Your task to perform on an android device: check battery use Image 0: 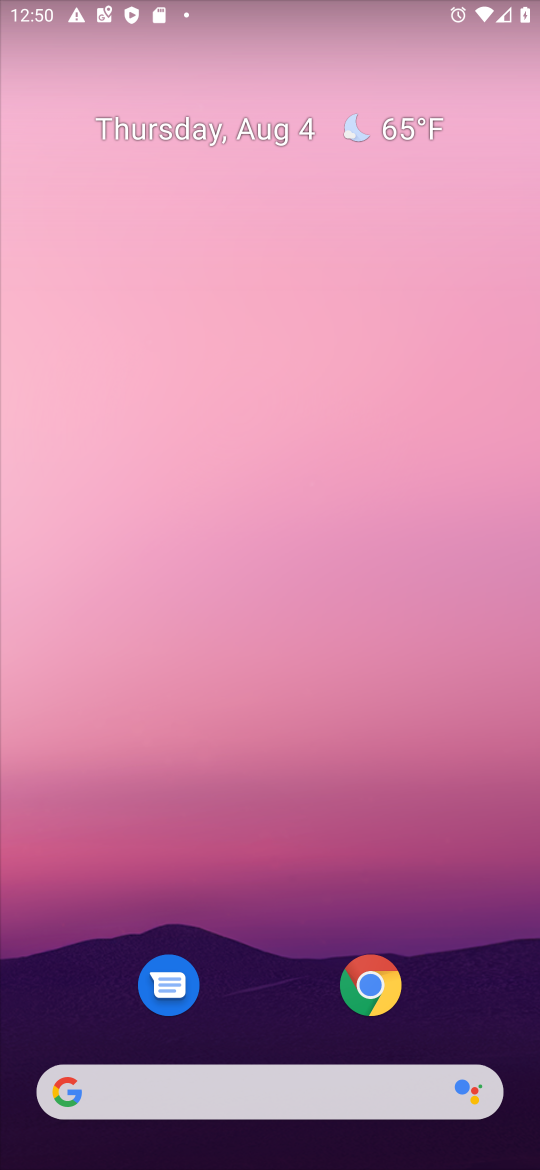
Step 0: drag from (266, 913) to (270, 107)
Your task to perform on an android device: check battery use Image 1: 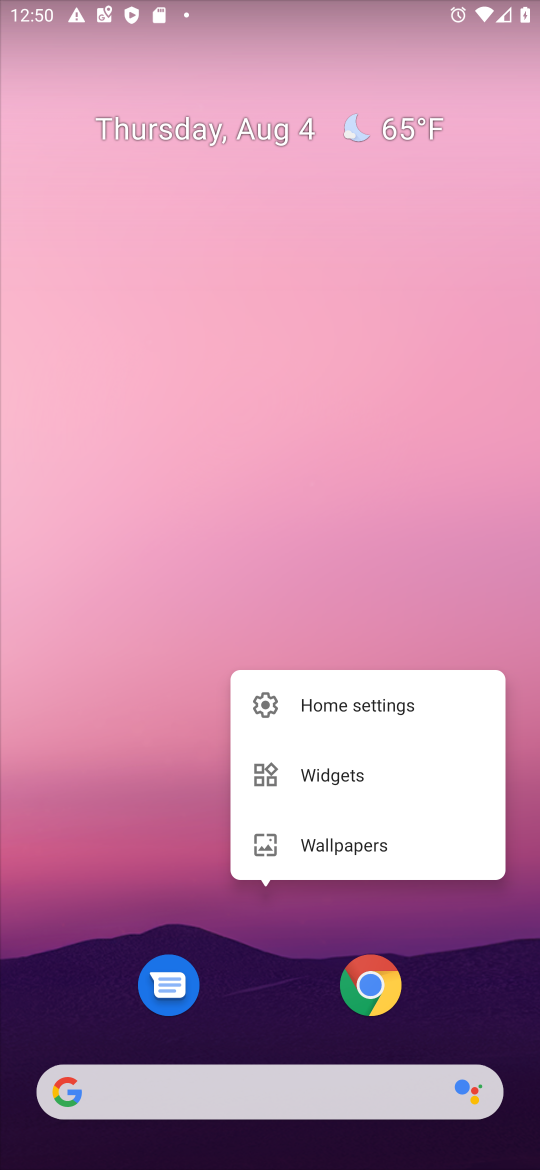
Step 1: click (99, 801)
Your task to perform on an android device: check battery use Image 2: 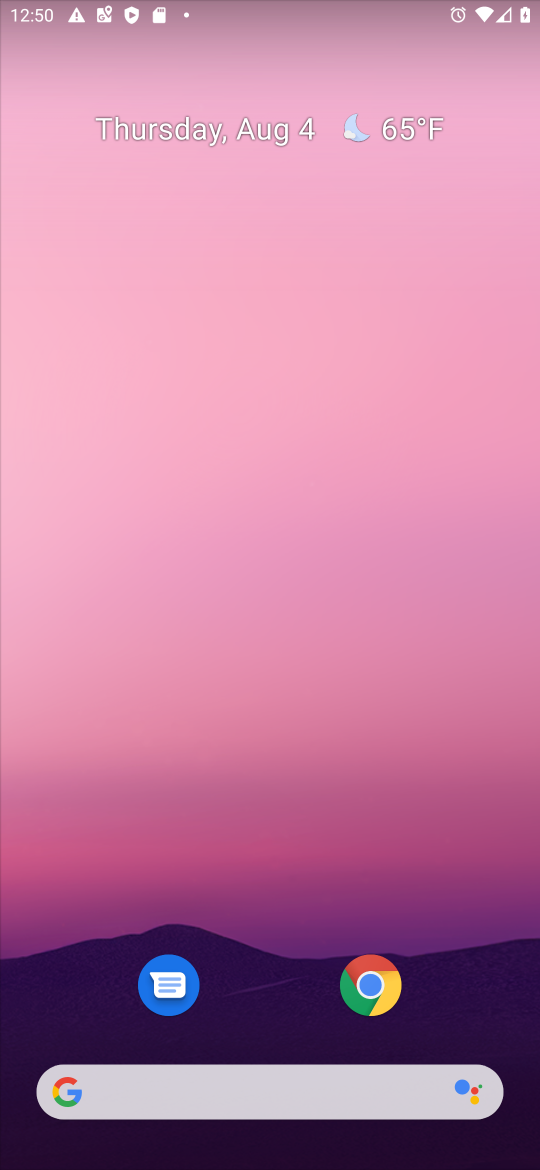
Step 2: drag from (222, 886) to (308, 186)
Your task to perform on an android device: check battery use Image 3: 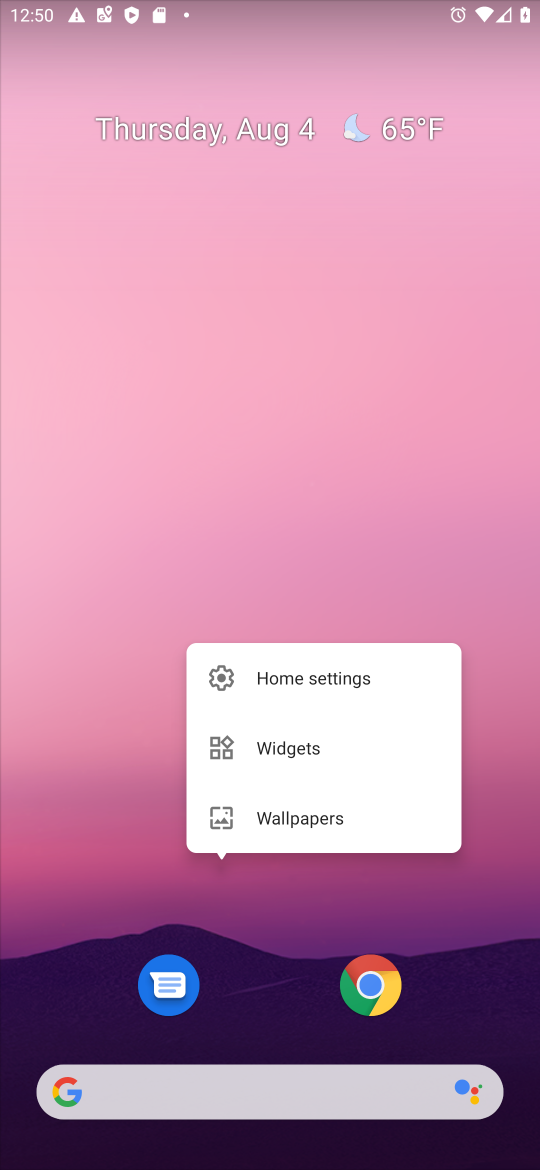
Step 3: click (157, 553)
Your task to perform on an android device: check battery use Image 4: 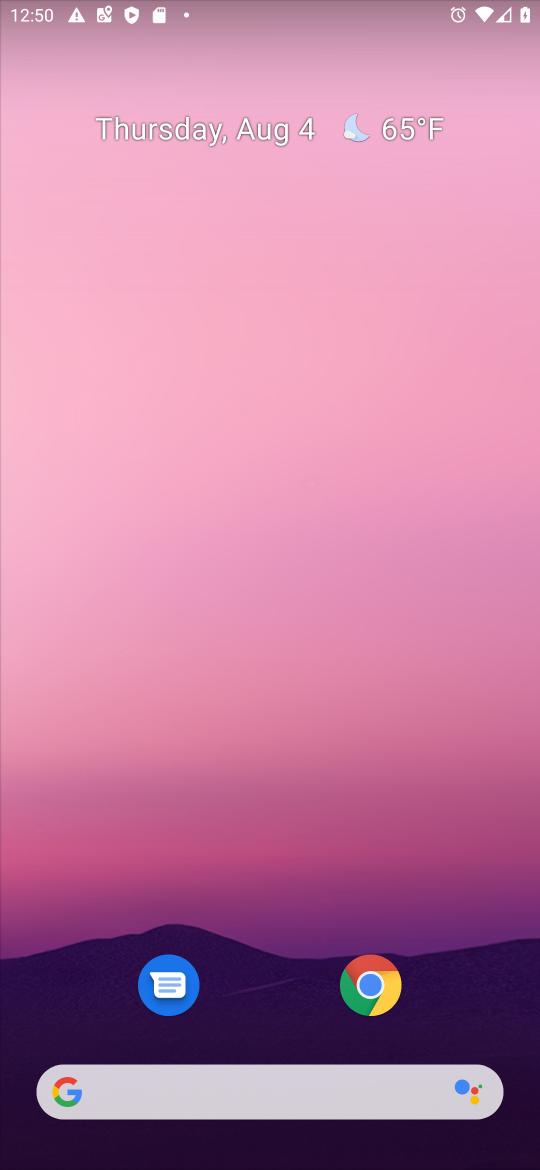
Step 4: drag from (270, 1018) to (276, 116)
Your task to perform on an android device: check battery use Image 5: 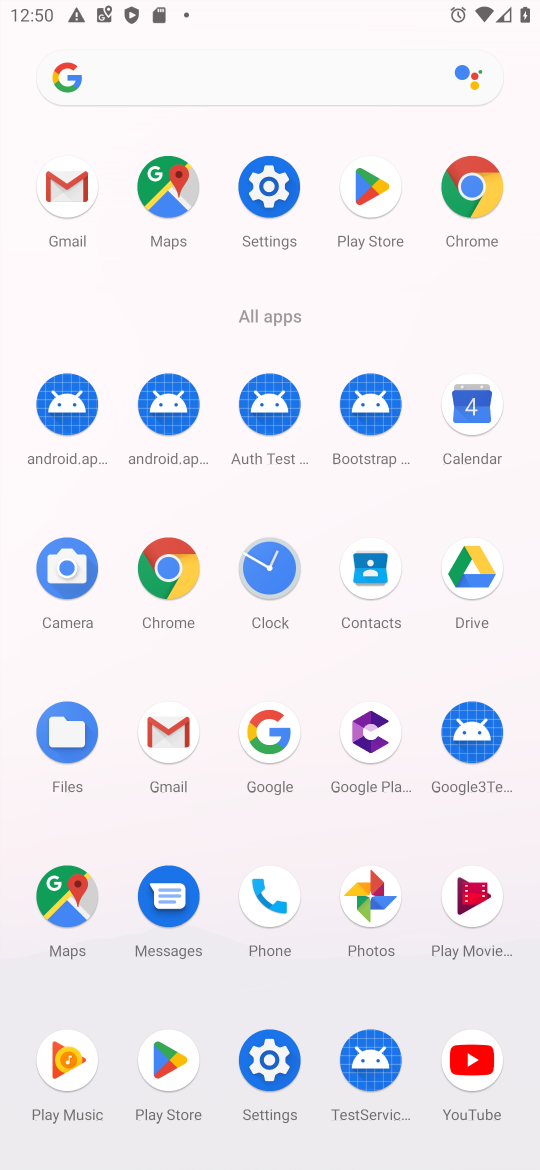
Step 5: click (283, 184)
Your task to perform on an android device: check battery use Image 6: 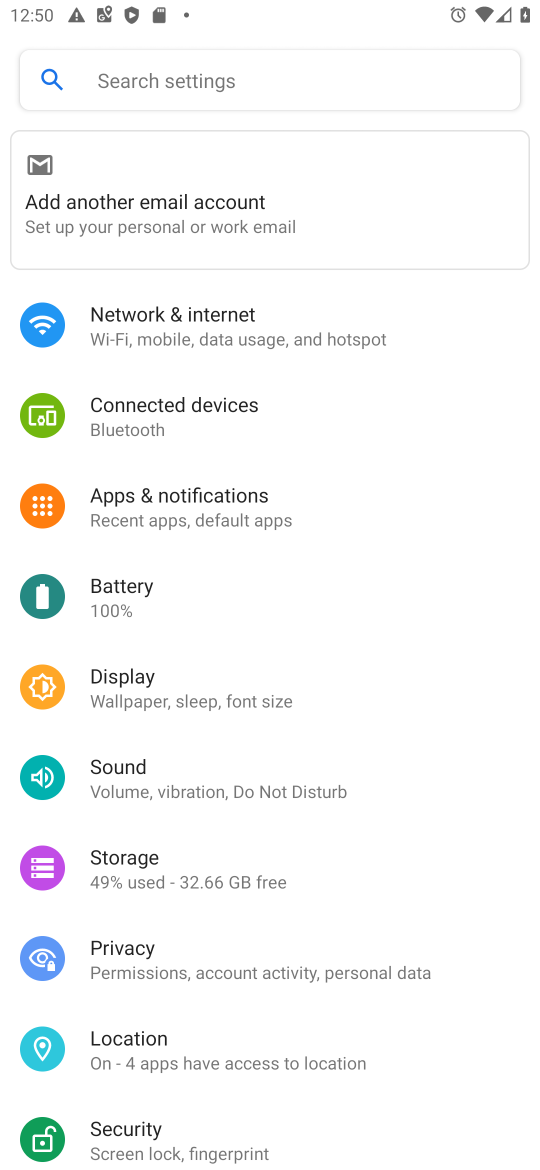
Step 6: click (121, 594)
Your task to perform on an android device: check battery use Image 7: 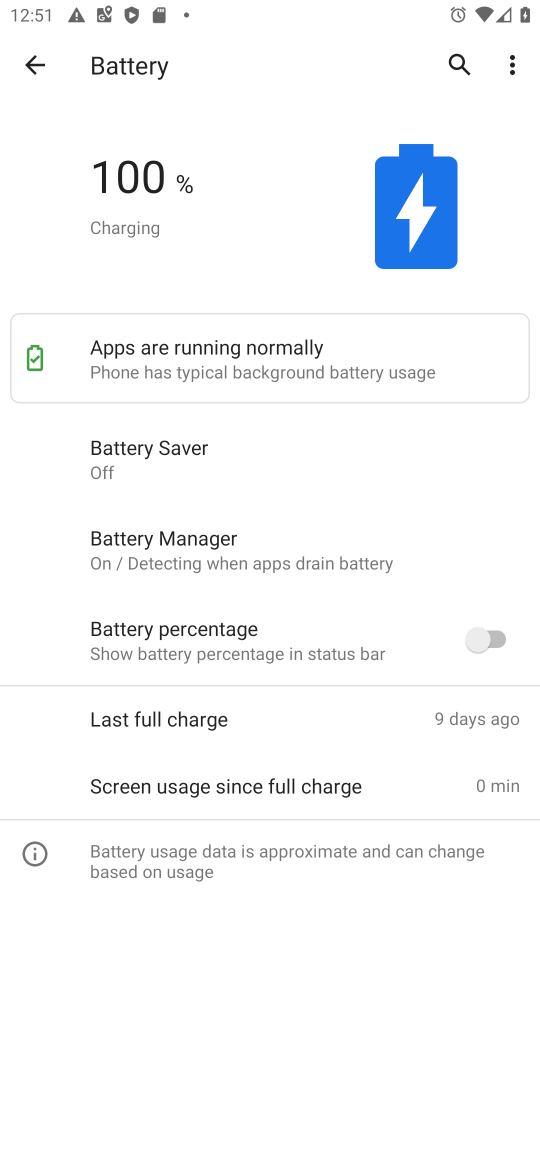
Step 7: task complete